Your task to perform on an android device: turn off notifications in google photos Image 0: 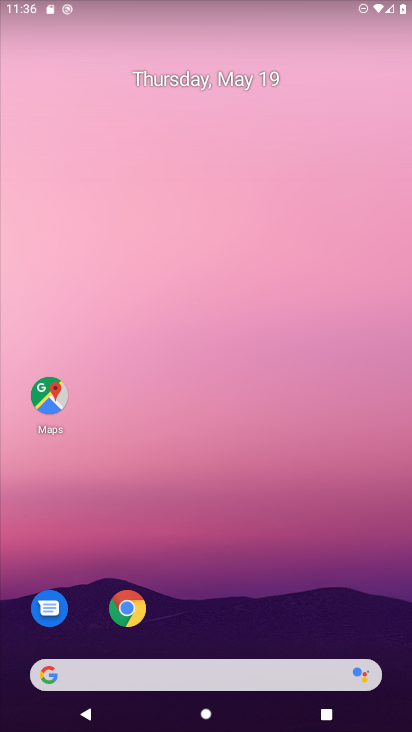
Step 0: press home button
Your task to perform on an android device: turn off notifications in google photos Image 1: 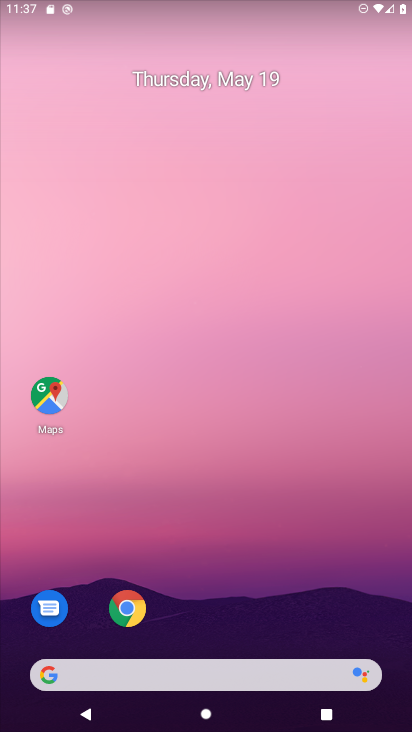
Step 1: drag from (330, 605) to (241, 70)
Your task to perform on an android device: turn off notifications in google photos Image 2: 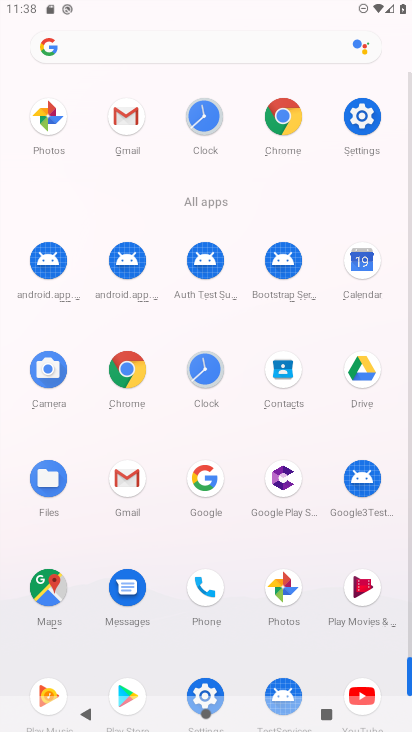
Step 2: click (283, 568)
Your task to perform on an android device: turn off notifications in google photos Image 3: 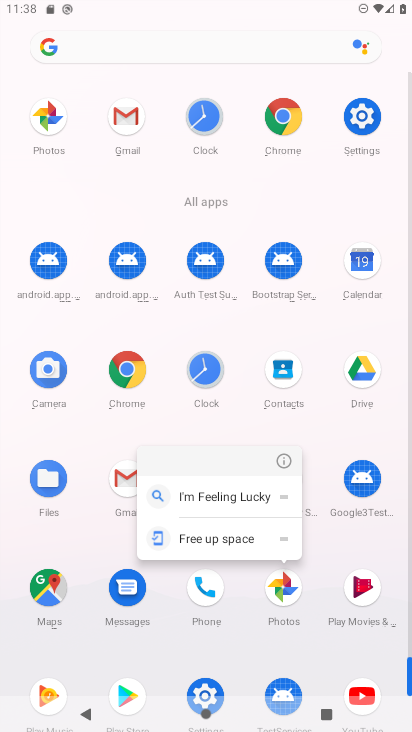
Step 3: click (283, 468)
Your task to perform on an android device: turn off notifications in google photos Image 4: 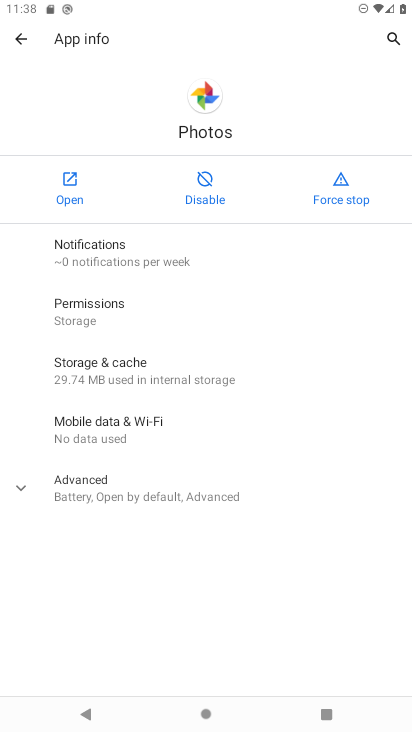
Step 4: click (162, 268)
Your task to perform on an android device: turn off notifications in google photos Image 5: 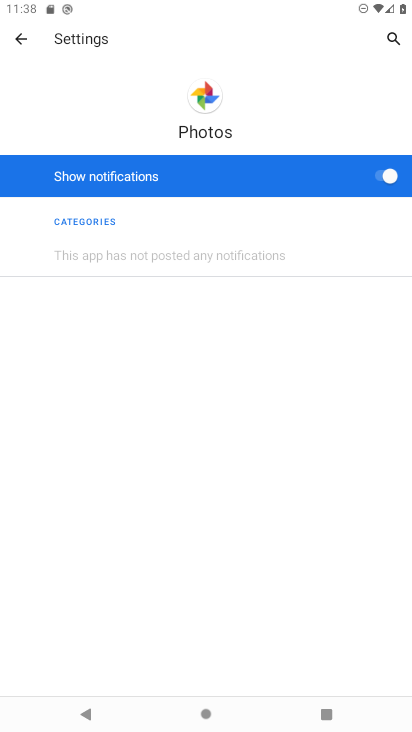
Step 5: click (365, 177)
Your task to perform on an android device: turn off notifications in google photos Image 6: 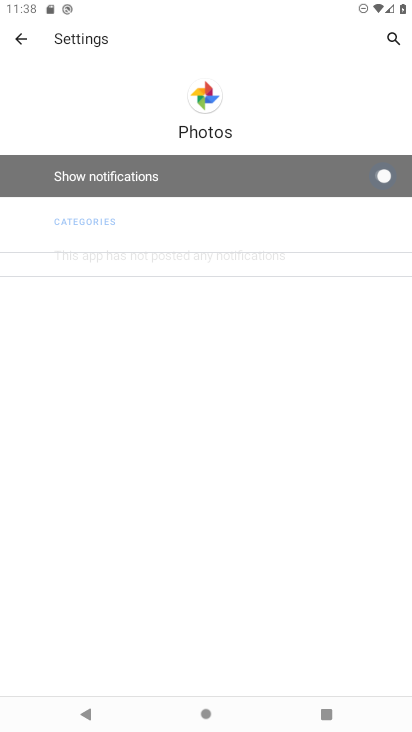
Step 6: click (365, 177)
Your task to perform on an android device: turn off notifications in google photos Image 7: 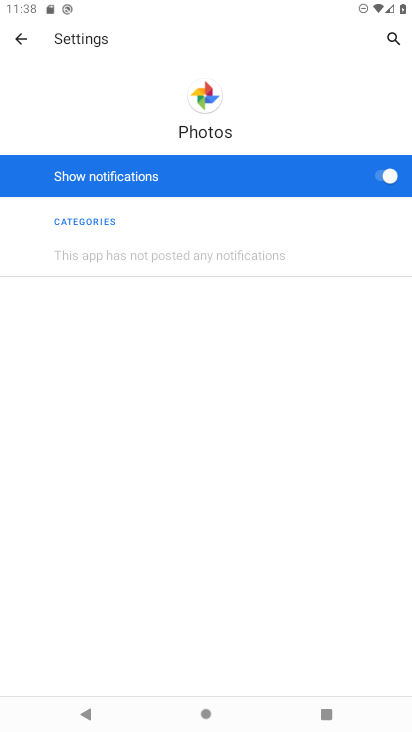
Step 7: click (405, 186)
Your task to perform on an android device: turn off notifications in google photos Image 8: 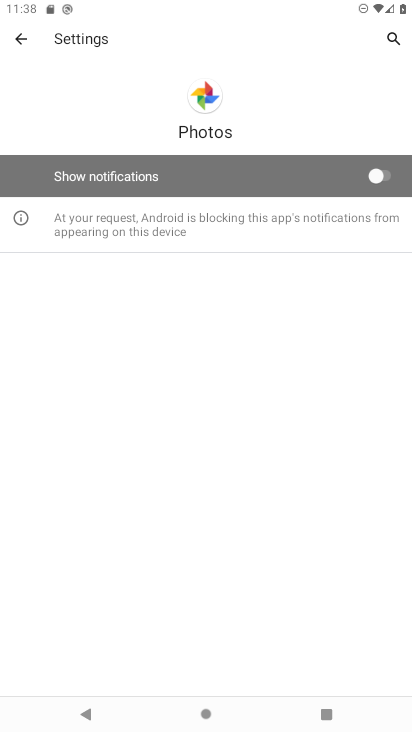
Step 8: task complete